Your task to perform on an android device: Search for the best rated soccer ball on AliExpress Image 0: 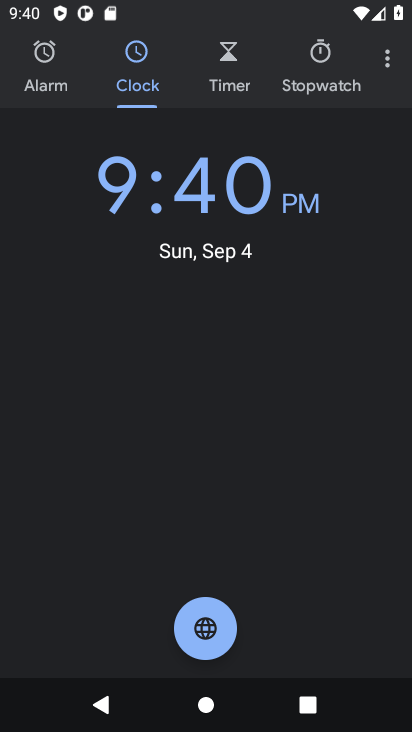
Step 0: press home button
Your task to perform on an android device: Search for the best rated soccer ball on AliExpress Image 1: 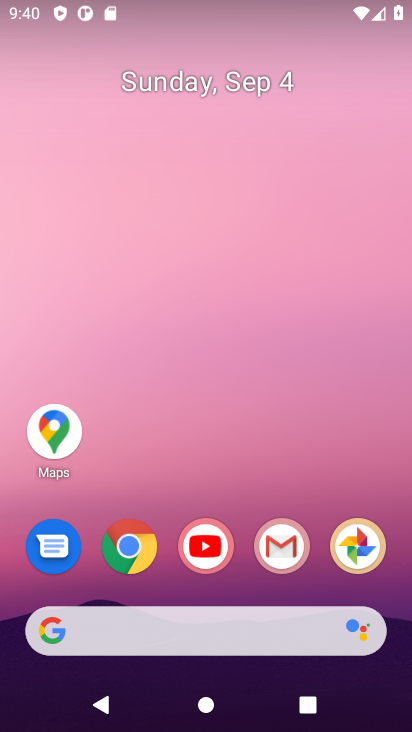
Step 1: click (131, 557)
Your task to perform on an android device: Search for the best rated soccer ball on AliExpress Image 2: 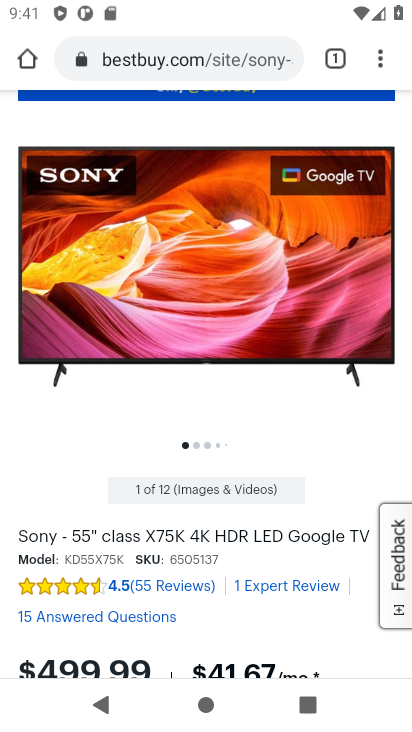
Step 2: click (146, 53)
Your task to perform on an android device: Search for the best rated soccer ball on AliExpress Image 3: 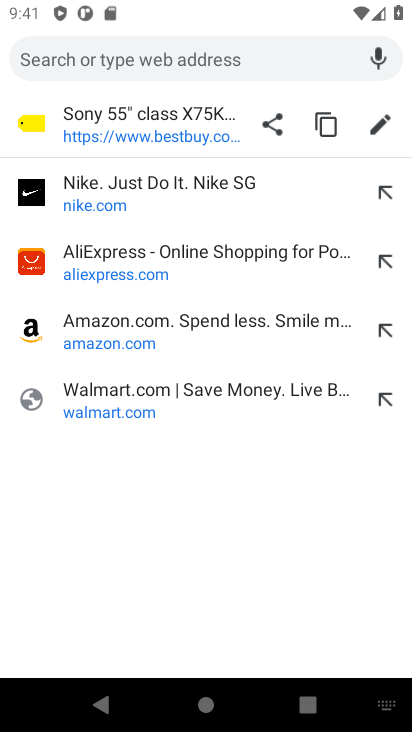
Step 3: type "AliExpress"
Your task to perform on an android device: Search for the best rated soccer ball on AliExpress Image 4: 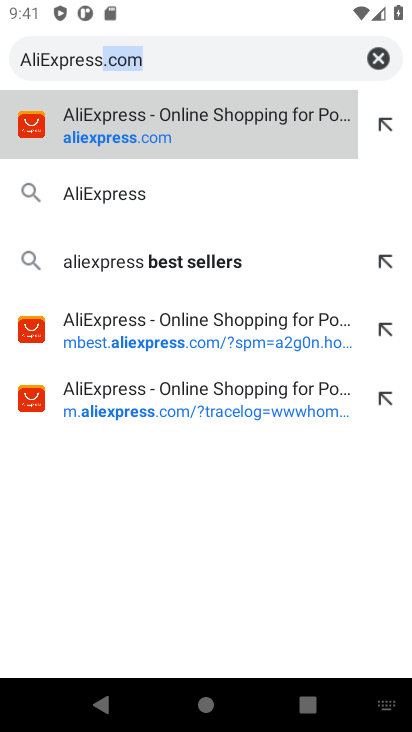
Step 4: click (112, 138)
Your task to perform on an android device: Search for the best rated soccer ball on AliExpress Image 5: 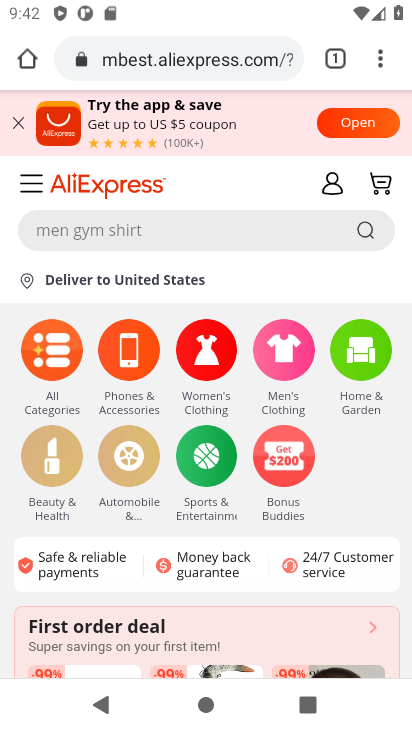
Step 5: click (121, 225)
Your task to perform on an android device: Search for the best rated soccer ball on AliExpress Image 6: 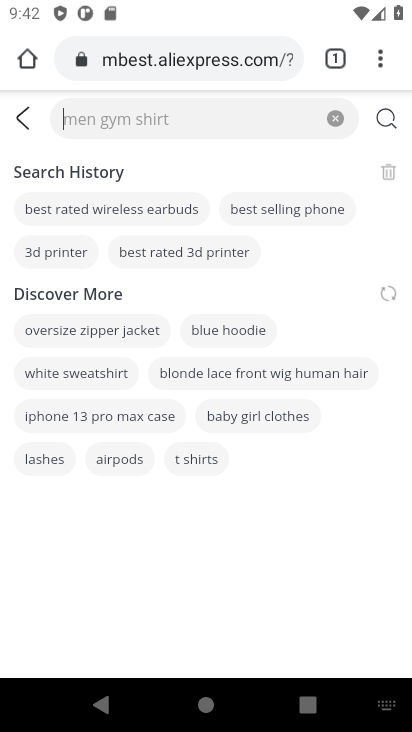
Step 6: type " best rated soccer ball"
Your task to perform on an android device: Search for the best rated soccer ball on AliExpress Image 7: 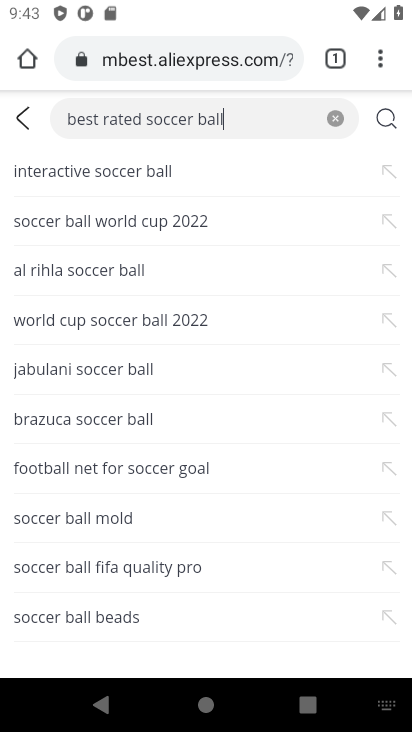
Step 7: click (383, 121)
Your task to perform on an android device: Search for the best rated soccer ball on AliExpress Image 8: 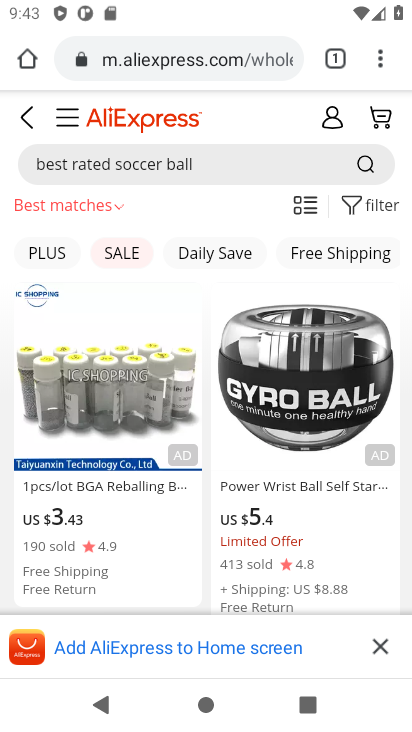
Step 8: task complete